Your task to perform on an android device: turn on airplane mode Image 0: 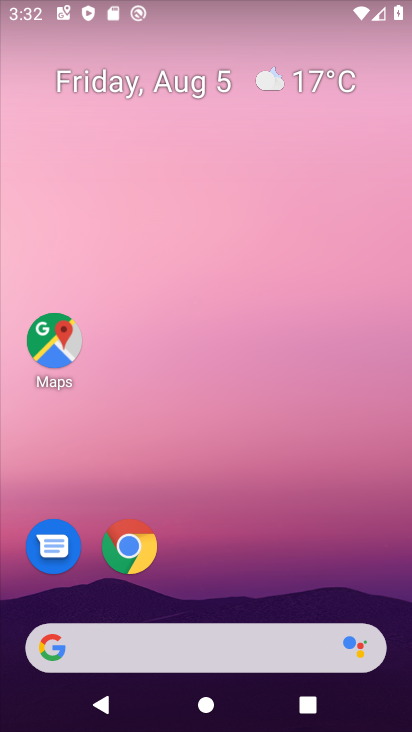
Step 0: press home button
Your task to perform on an android device: turn on airplane mode Image 1: 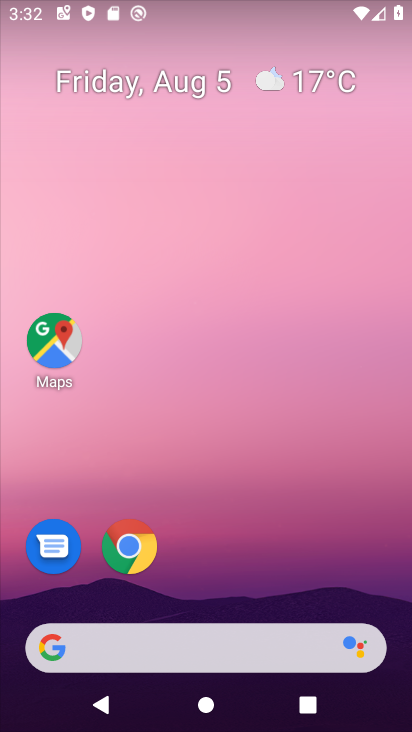
Step 1: drag from (321, 582) to (318, 175)
Your task to perform on an android device: turn on airplane mode Image 2: 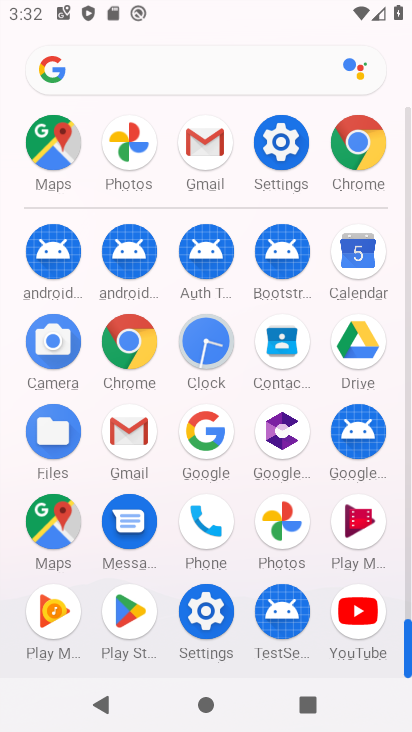
Step 2: click (277, 141)
Your task to perform on an android device: turn on airplane mode Image 3: 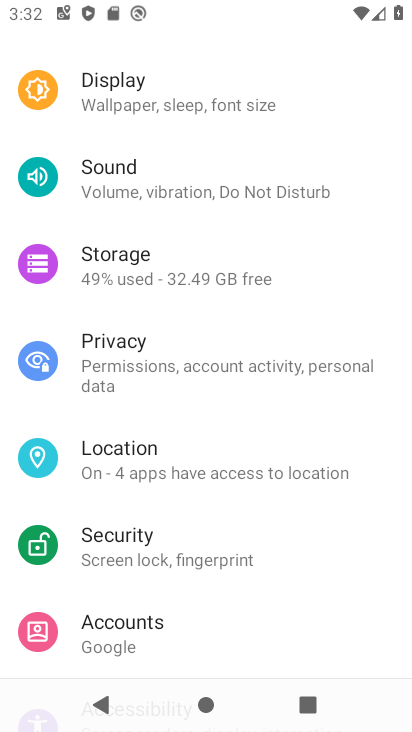
Step 3: drag from (366, 153) to (367, 208)
Your task to perform on an android device: turn on airplane mode Image 4: 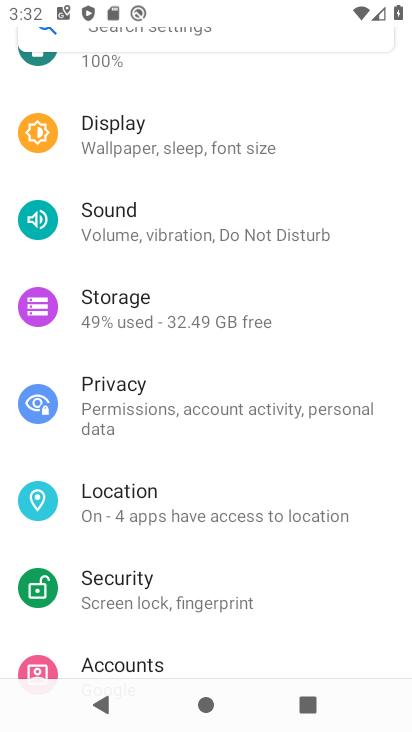
Step 4: drag from (361, 122) to (370, 228)
Your task to perform on an android device: turn on airplane mode Image 5: 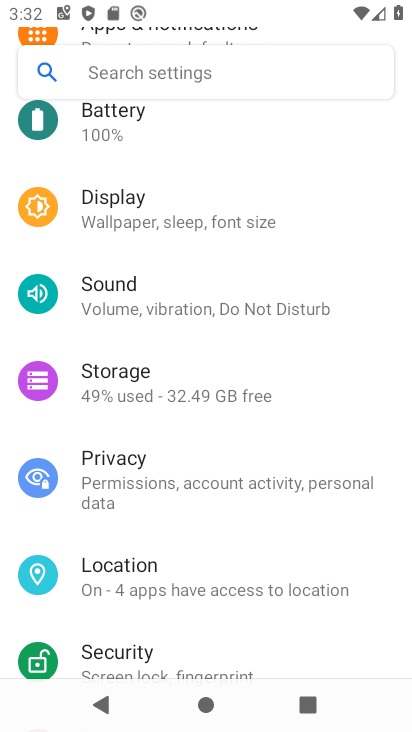
Step 5: drag from (370, 141) to (368, 271)
Your task to perform on an android device: turn on airplane mode Image 6: 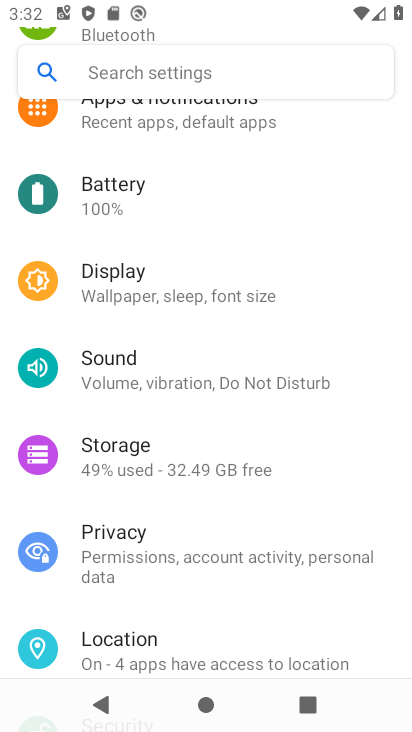
Step 6: drag from (358, 172) to (372, 293)
Your task to perform on an android device: turn on airplane mode Image 7: 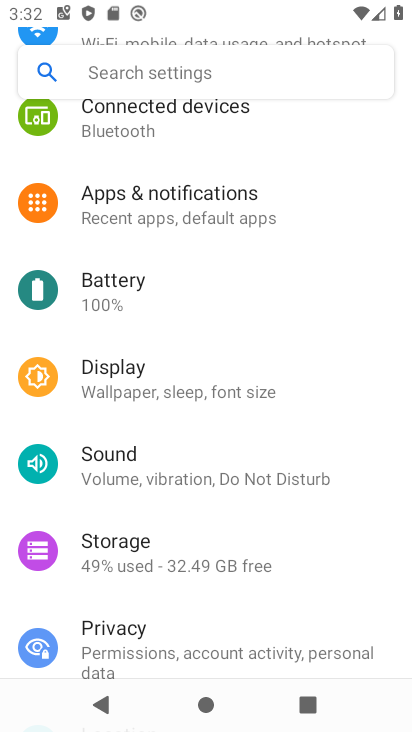
Step 7: drag from (372, 211) to (376, 304)
Your task to perform on an android device: turn on airplane mode Image 8: 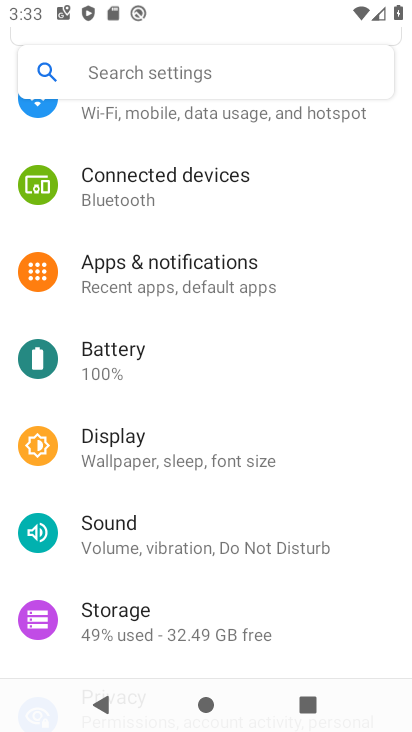
Step 8: drag from (367, 199) to (371, 324)
Your task to perform on an android device: turn on airplane mode Image 9: 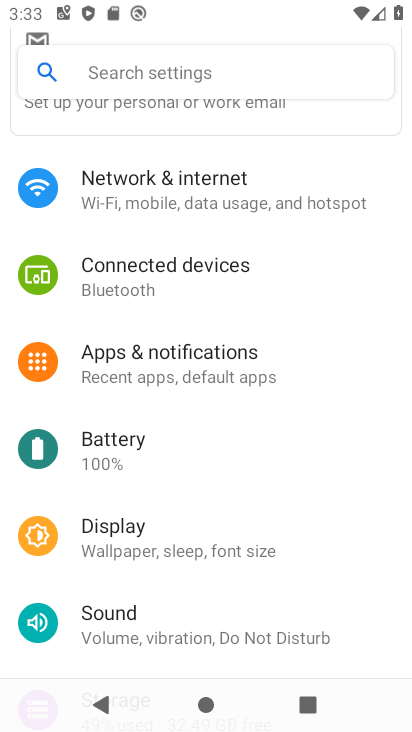
Step 9: drag from (370, 239) to (371, 375)
Your task to perform on an android device: turn on airplane mode Image 10: 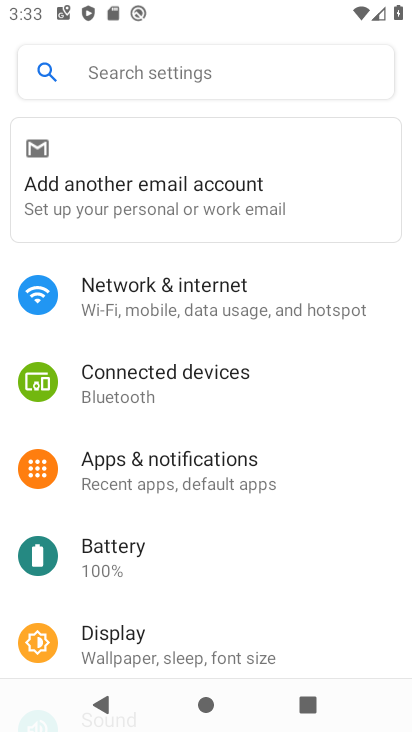
Step 10: click (298, 292)
Your task to perform on an android device: turn on airplane mode Image 11: 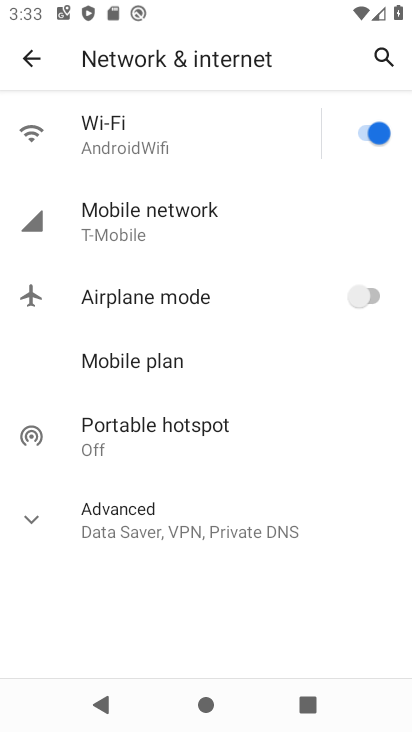
Step 11: click (368, 299)
Your task to perform on an android device: turn on airplane mode Image 12: 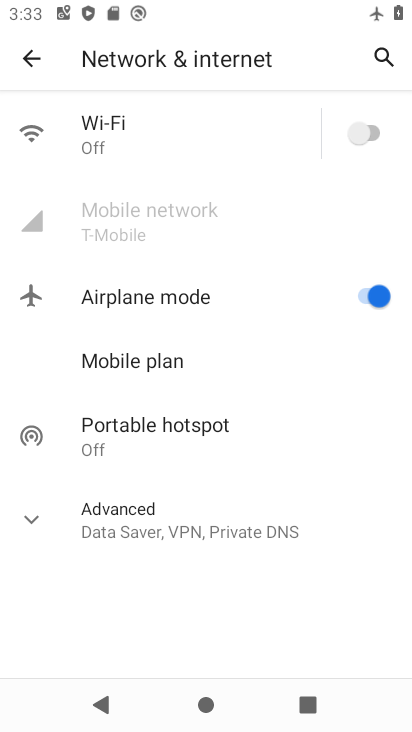
Step 12: task complete